Your task to perform on an android device: What is the capital of China? Image 0: 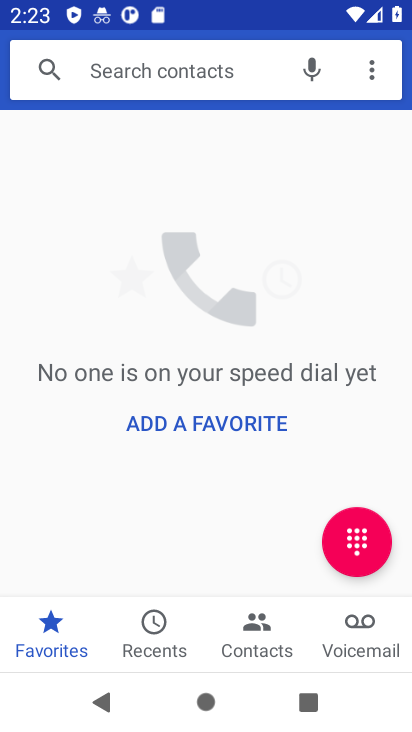
Step 0: press home button
Your task to perform on an android device: What is the capital of China? Image 1: 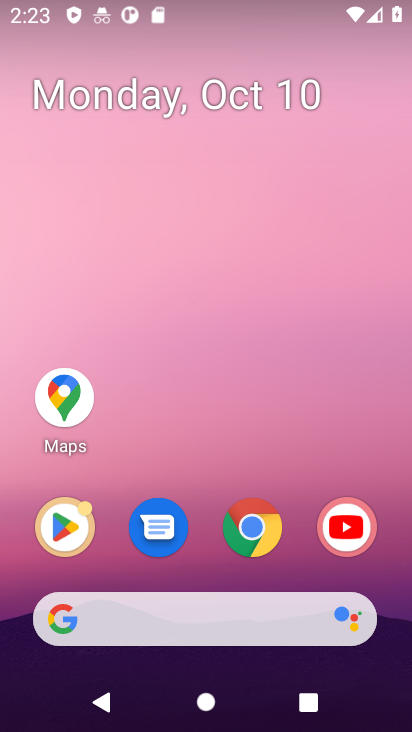
Step 1: click (250, 528)
Your task to perform on an android device: What is the capital of China? Image 2: 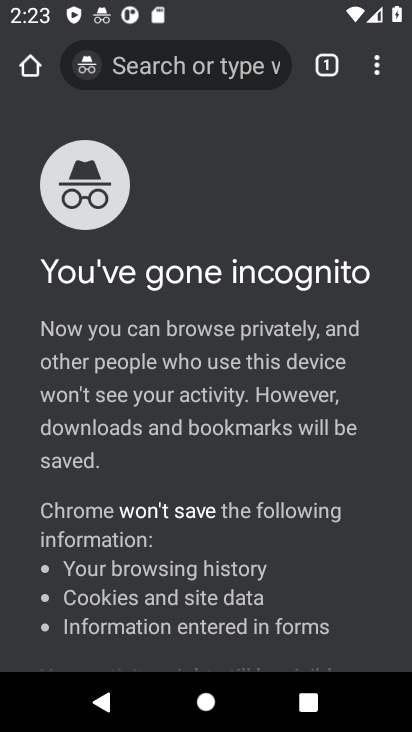
Step 2: click (184, 81)
Your task to perform on an android device: What is the capital of China? Image 3: 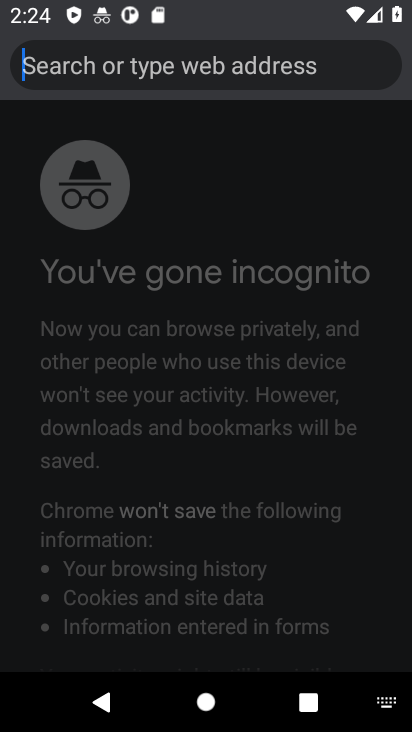
Step 3: type "capital of china"
Your task to perform on an android device: What is the capital of China? Image 4: 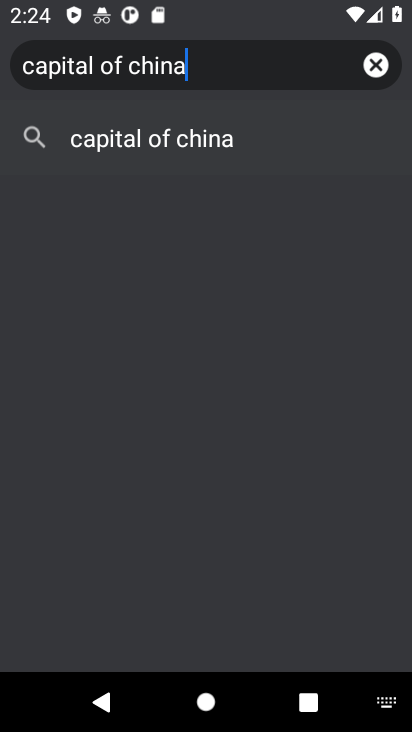
Step 4: click (202, 145)
Your task to perform on an android device: What is the capital of China? Image 5: 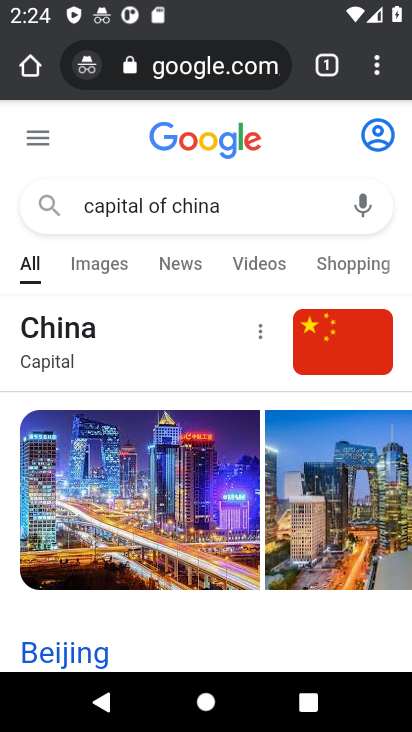
Step 5: task complete